Your task to perform on an android device: Search for vegetarian restaurants on Maps Image 0: 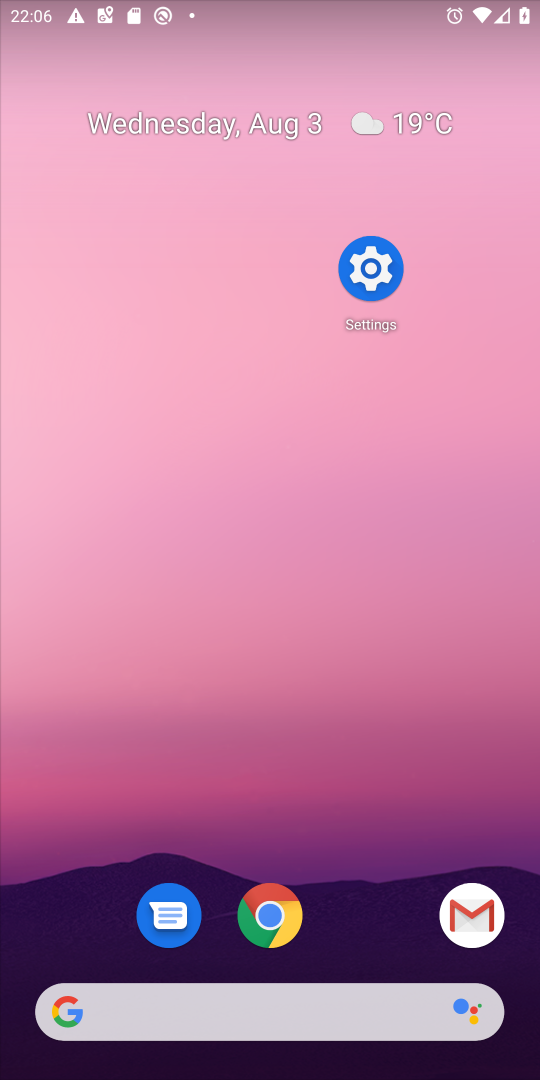
Step 0: press home button
Your task to perform on an android device: Search for vegetarian restaurants on Maps Image 1: 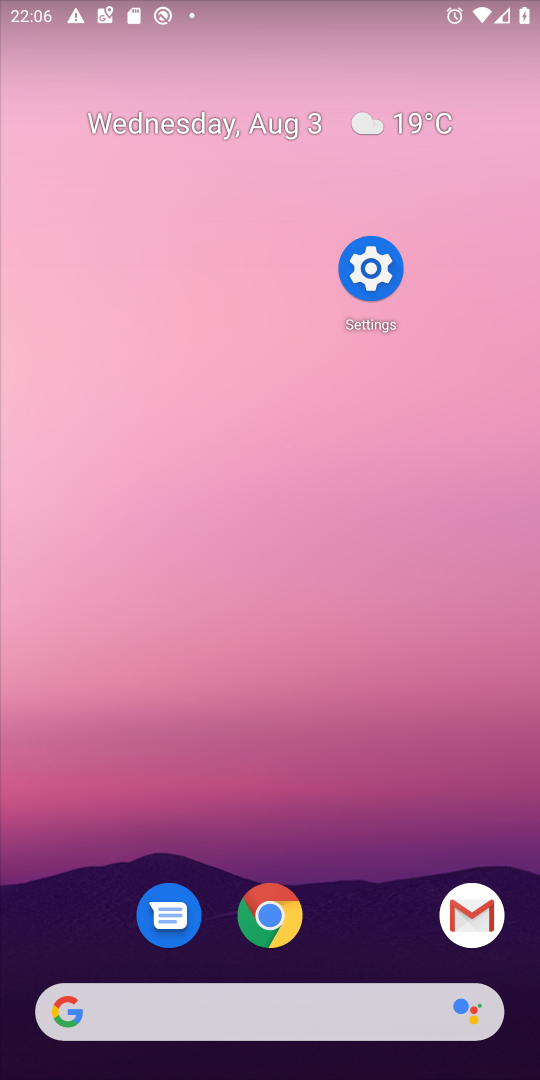
Step 1: drag from (354, 1017) to (175, 474)
Your task to perform on an android device: Search for vegetarian restaurants on Maps Image 2: 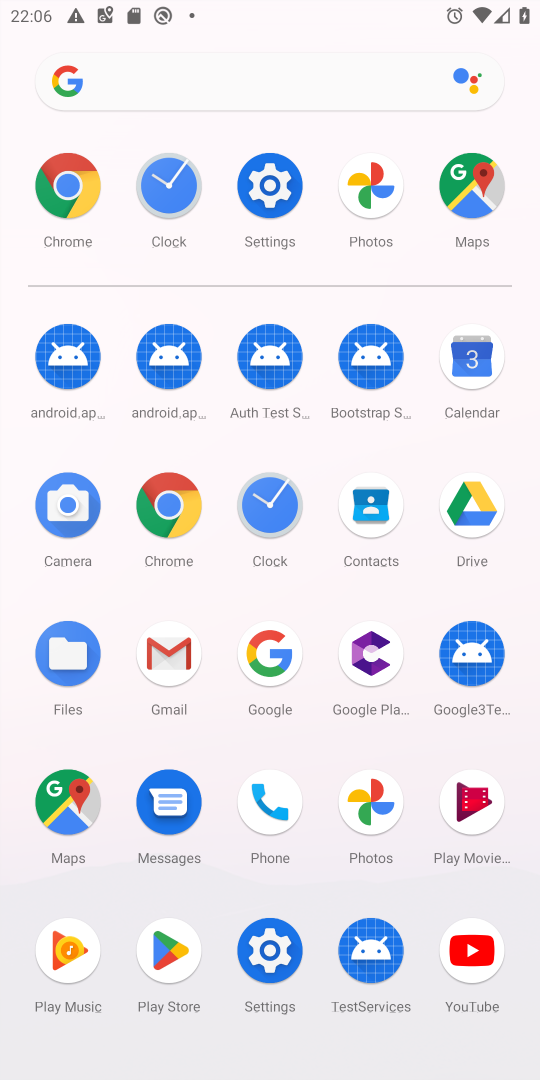
Step 2: click (74, 827)
Your task to perform on an android device: Search for vegetarian restaurants on Maps Image 3: 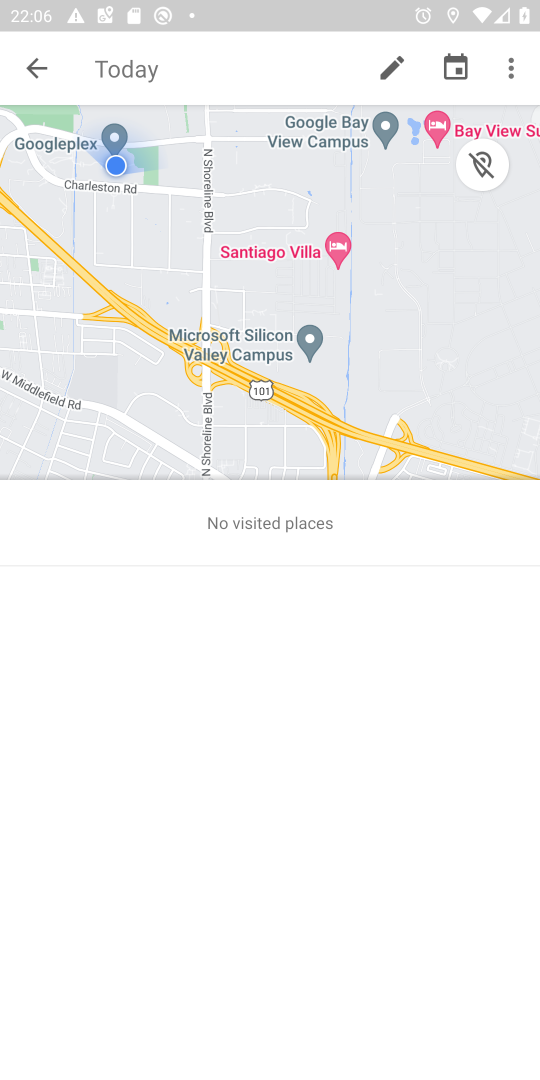
Step 3: click (23, 66)
Your task to perform on an android device: Search for vegetarian restaurants on Maps Image 4: 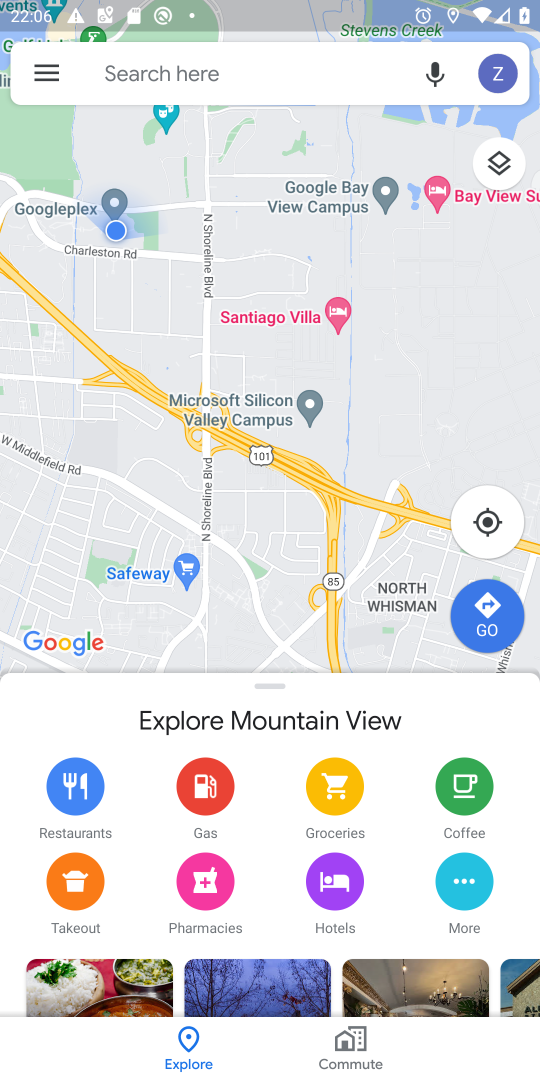
Step 4: click (197, 70)
Your task to perform on an android device: Search for vegetarian restaurants on Maps Image 5: 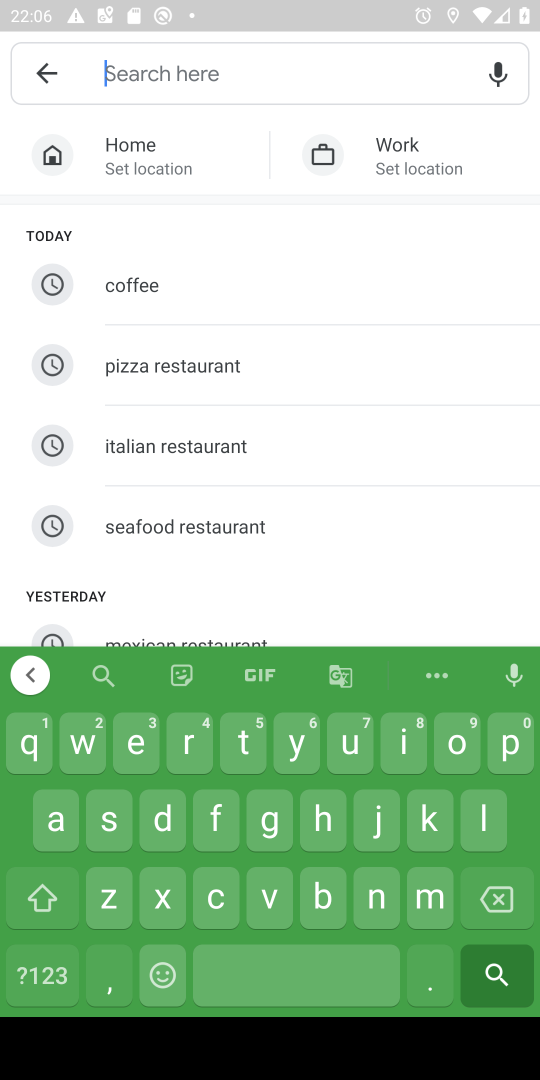
Step 5: drag from (205, 572) to (179, 380)
Your task to perform on an android device: Search for vegetarian restaurants on Maps Image 6: 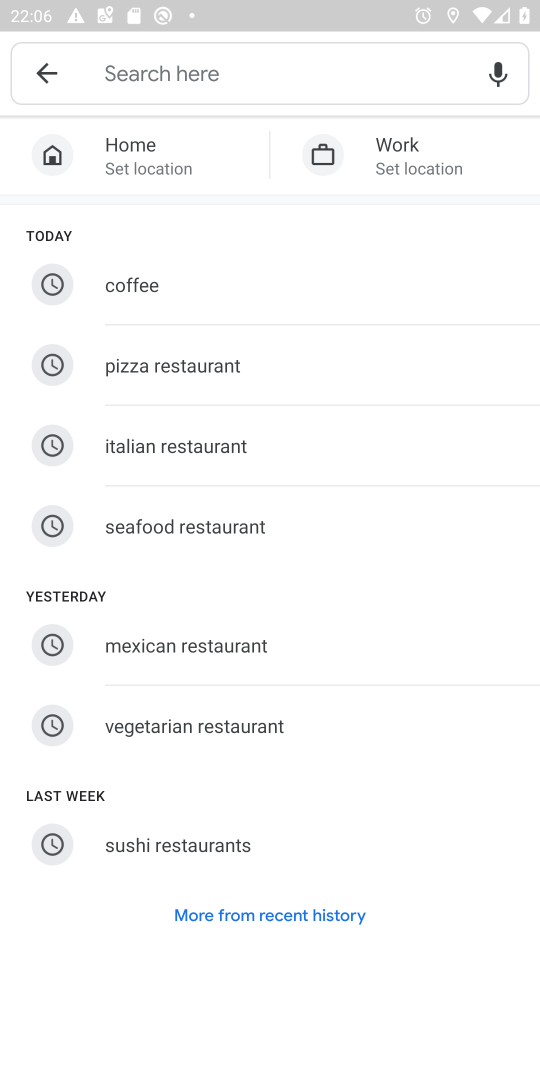
Step 6: click (241, 730)
Your task to perform on an android device: Search for vegetarian restaurants on Maps Image 7: 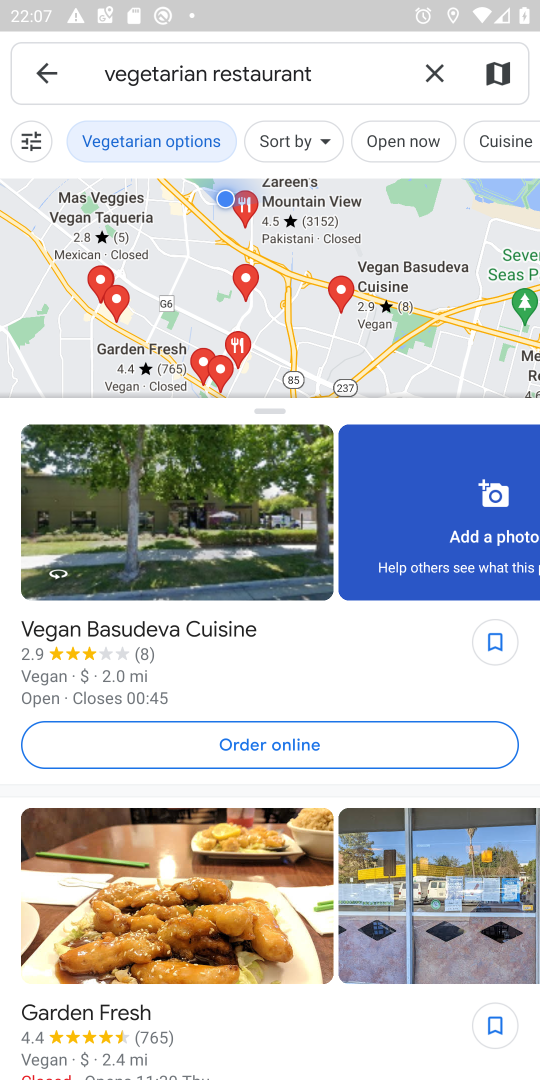
Step 7: task complete